Your task to perform on an android device: Go to Maps Image 0: 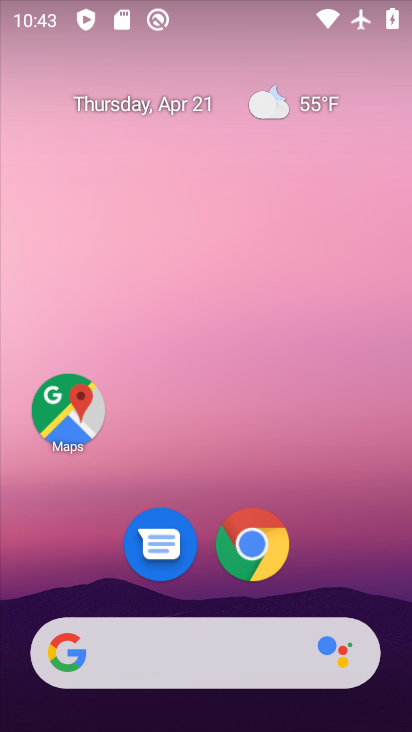
Step 0: drag from (333, 548) to (279, 84)
Your task to perform on an android device: Go to Maps Image 1: 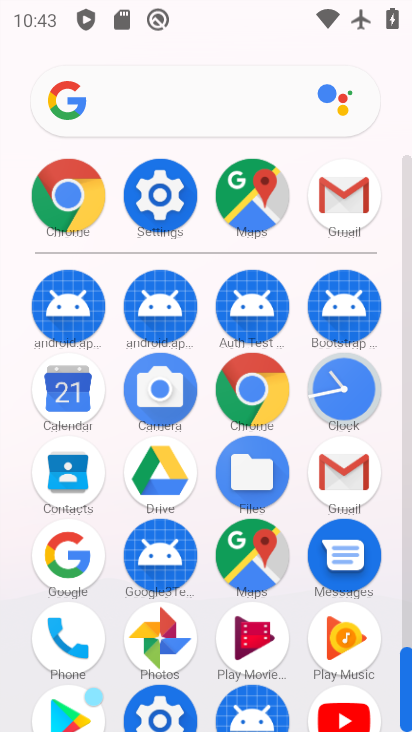
Step 1: drag from (5, 493) to (4, 212)
Your task to perform on an android device: Go to Maps Image 2: 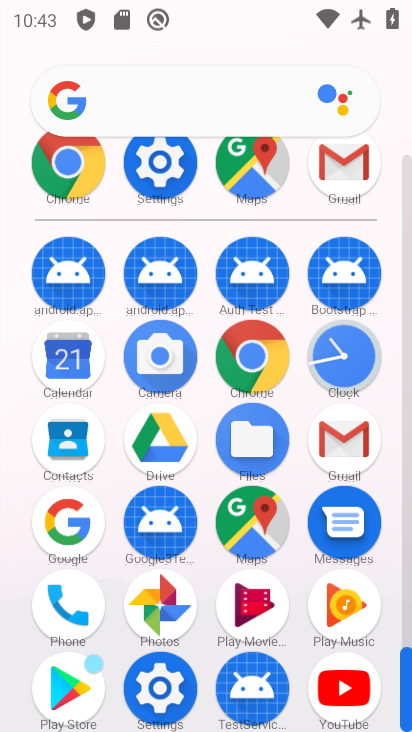
Step 2: click (251, 158)
Your task to perform on an android device: Go to Maps Image 3: 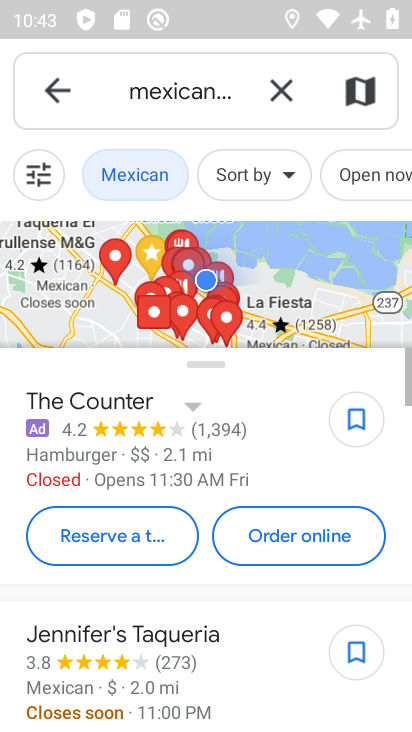
Step 3: click (286, 79)
Your task to perform on an android device: Go to Maps Image 4: 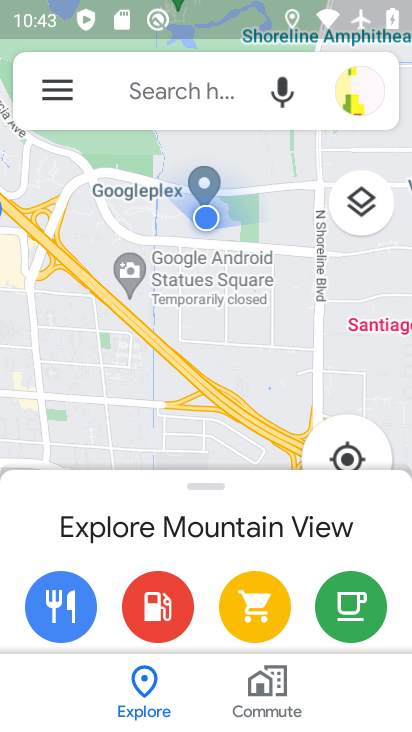
Step 4: click (54, 83)
Your task to perform on an android device: Go to Maps Image 5: 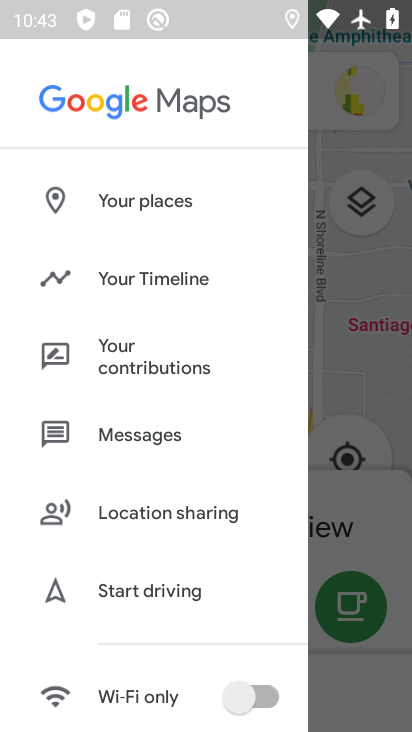
Step 5: click (358, 266)
Your task to perform on an android device: Go to Maps Image 6: 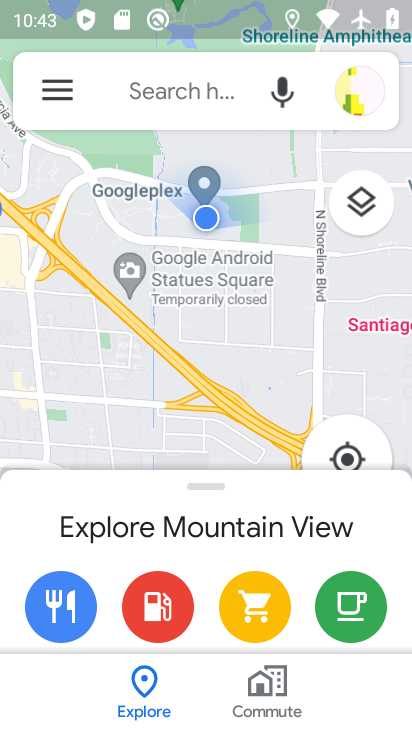
Step 6: task complete